Your task to perform on an android device: Go to network settings Image 0: 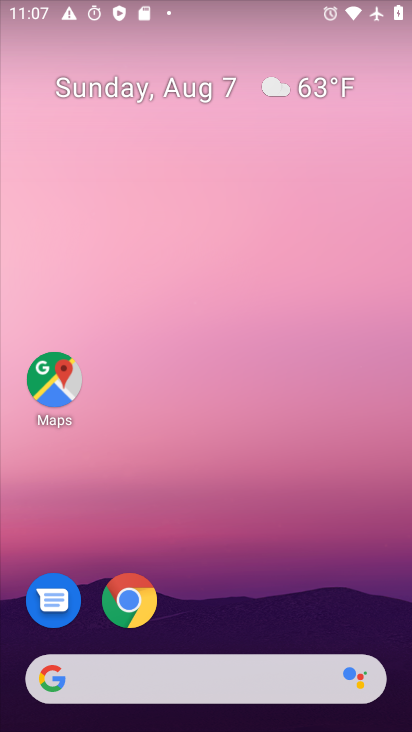
Step 0: drag from (210, 609) to (214, 143)
Your task to perform on an android device: Go to network settings Image 1: 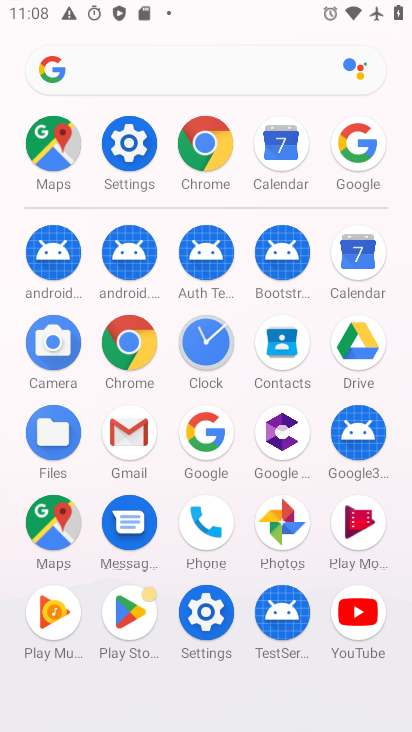
Step 1: click (128, 155)
Your task to perform on an android device: Go to network settings Image 2: 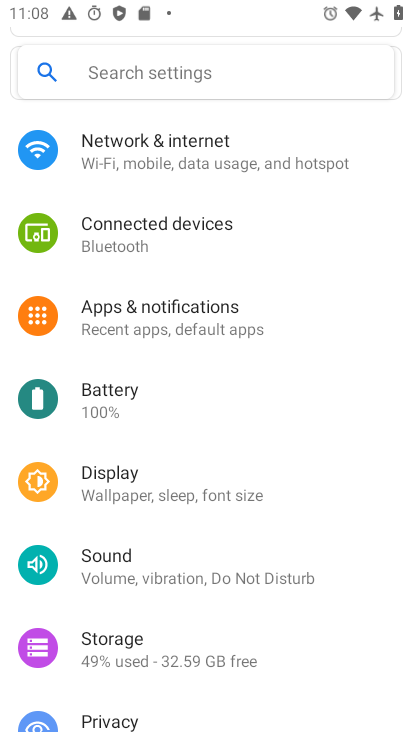
Step 2: click (160, 167)
Your task to perform on an android device: Go to network settings Image 3: 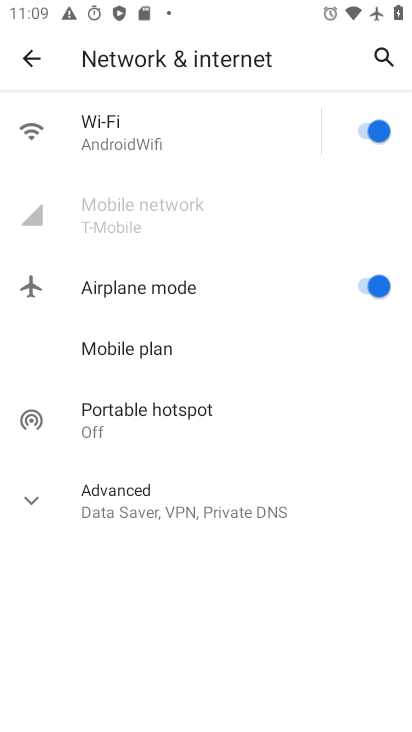
Step 3: click (205, 215)
Your task to perform on an android device: Go to network settings Image 4: 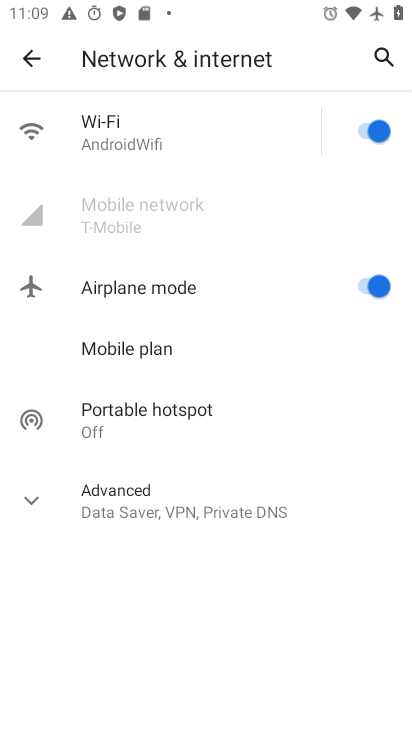
Step 4: task complete